Your task to perform on an android device: Open privacy settings Image 0: 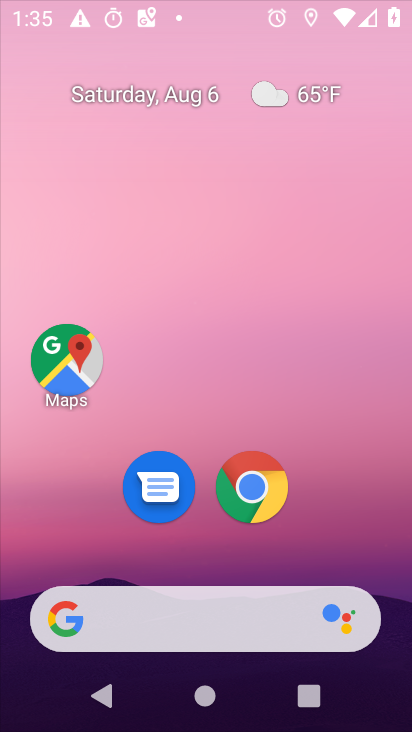
Step 0: drag from (201, 553) to (265, 41)
Your task to perform on an android device: Open privacy settings Image 1: 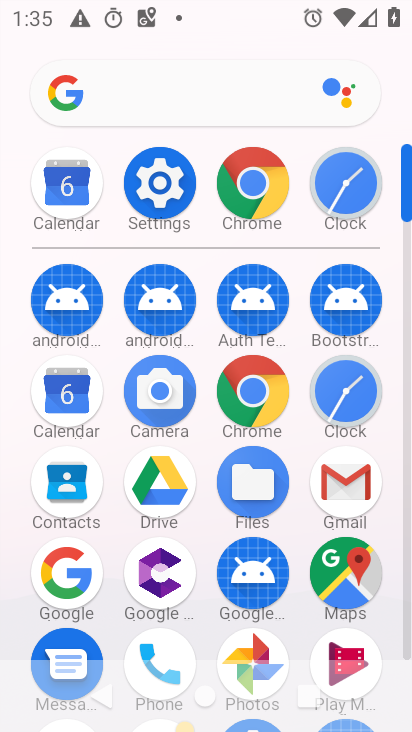
Step 1: click (60, 466)
Your task to perform on an android device: Open privacy settings Image 2: 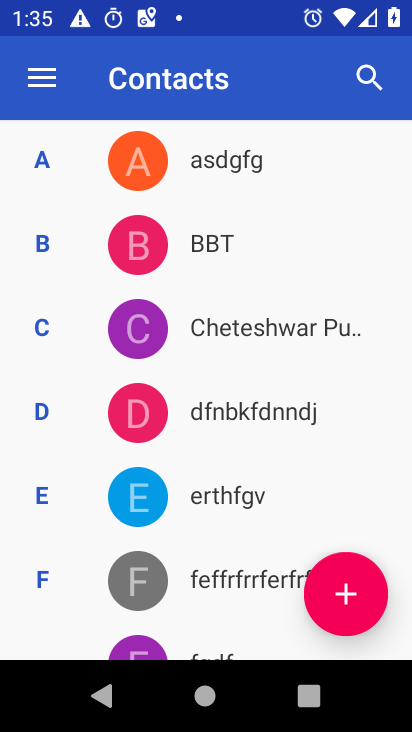
Step 2: press back button
Your task to perform on an android device: Open privacy settings Image 3: 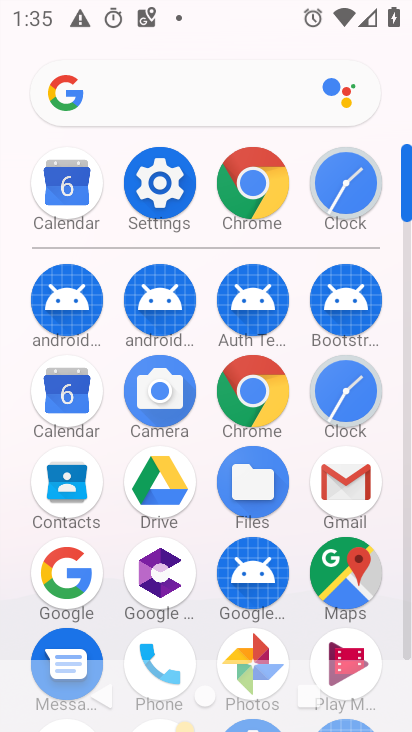
Step 3: click (247, 183)
Your task to perform on an android device: Open privacy settings Image 4: 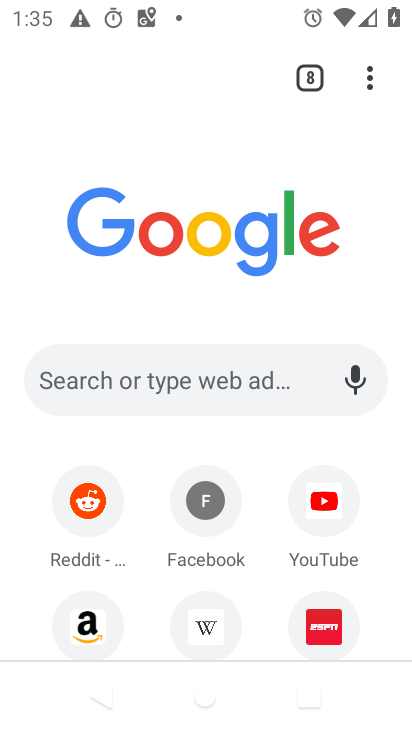
Step 4: drag from (363, 85) to (159, 550)
Your task to perform on an android device: Open privacy settings Image 5: 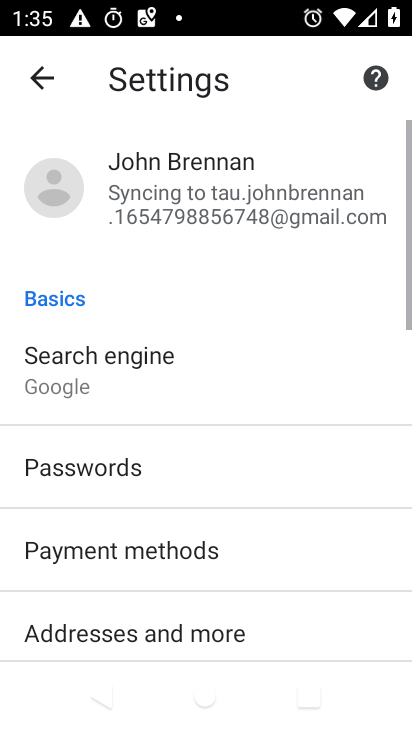
Step 5: drag from (176, 641) to (235, 13)
Your task to perform on an android device: Open privacy settings Image 6: 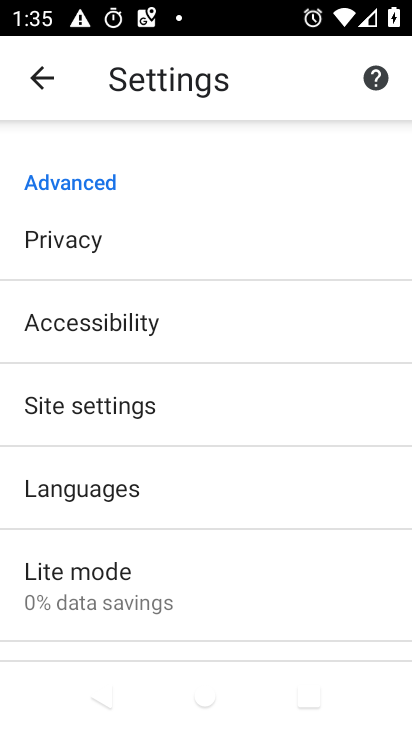
Step 6: click (89, 243)
Your task to perform on an android device: Open privacy settings Image 7: 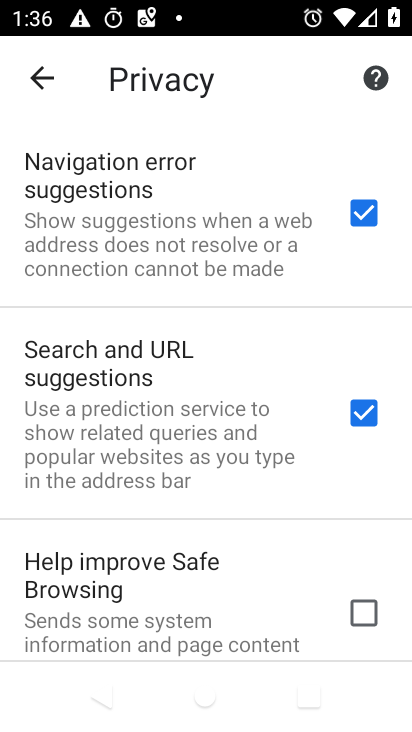
Step 7: task complete